Your task to perform on an android device: toggle data saver in the chrome app Image 0: 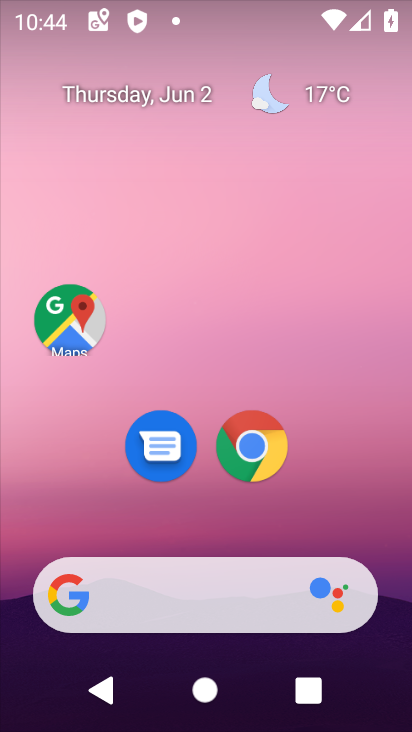
Step 0: click (249, 443)
Your task to perform on an android device: toggle data saver in the chrome app Image 1: 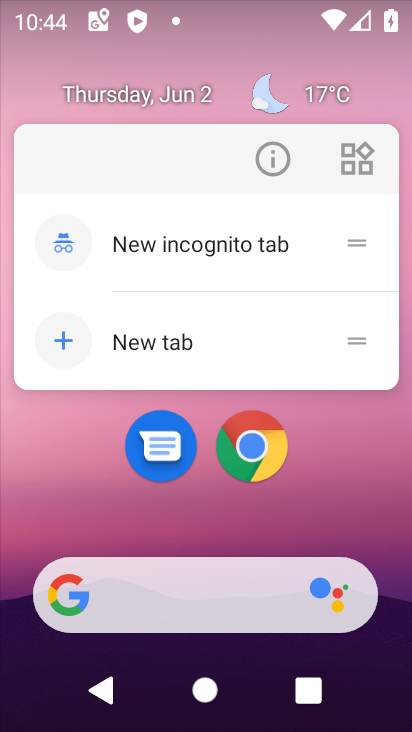
Step 1: click (249, 443)
Your task to perform on an android device: toggle data saver in the chrome app Image 2: 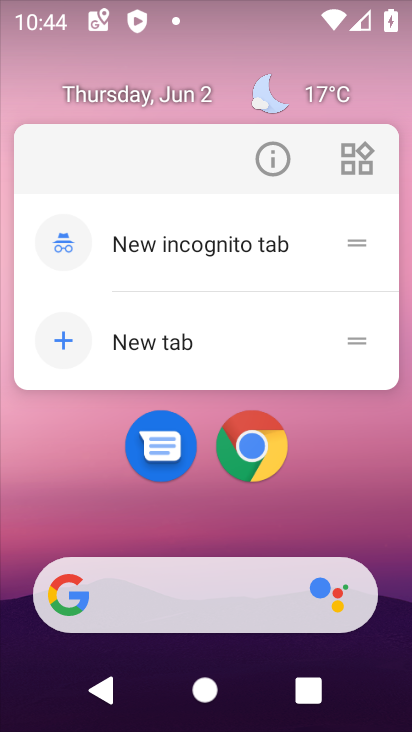
Step 2: click (258, 450)
Your task to perform on an android device: toggle data saver in the chrome app Image 3: 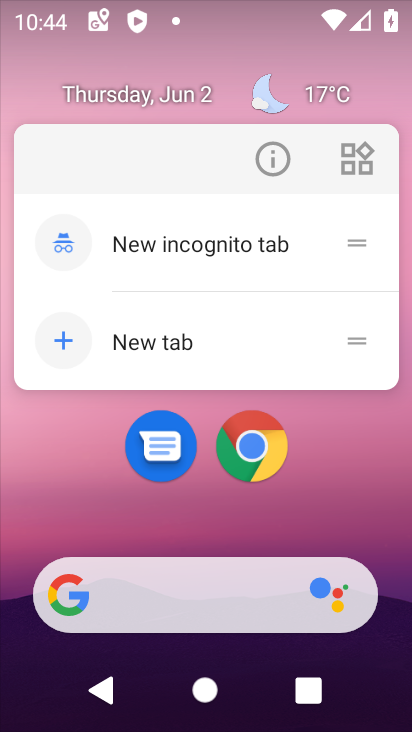
Step 3: click (334, 483)
Your task to perform on an android device: toggle data saver in the chrome app Image 4: 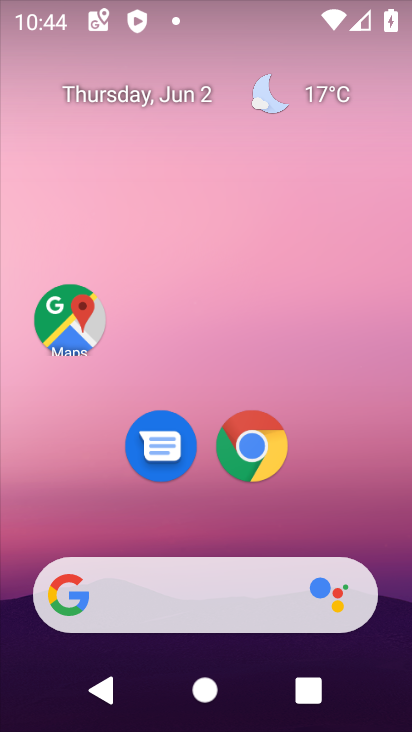
Step 4: drag from (329, 479) to (328, 32)
Your task to perform on an android device: toggle data saver in the chrome app Image 5: 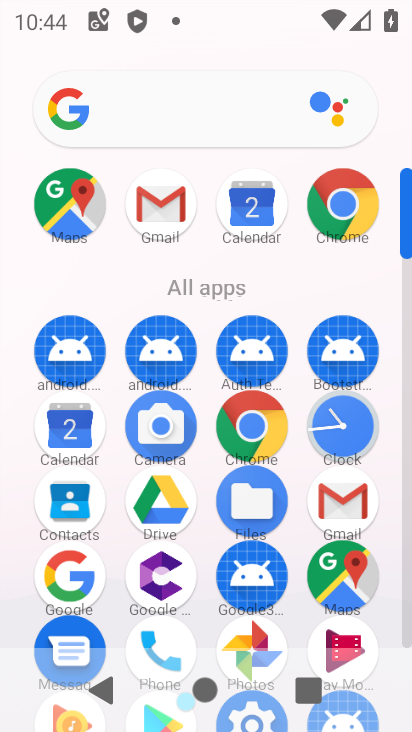
Step 5: click (343, 200)
Your task to perform on an android device: toggle data saver in the chrome app Image 6: 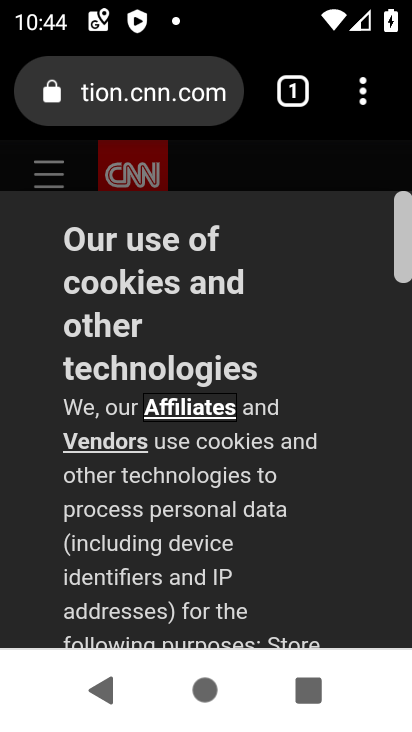
Step 6: drag from (371, 88) to (266, 516)
Your task to perform on an android device: toggle data saver in the chrome app Image 7: 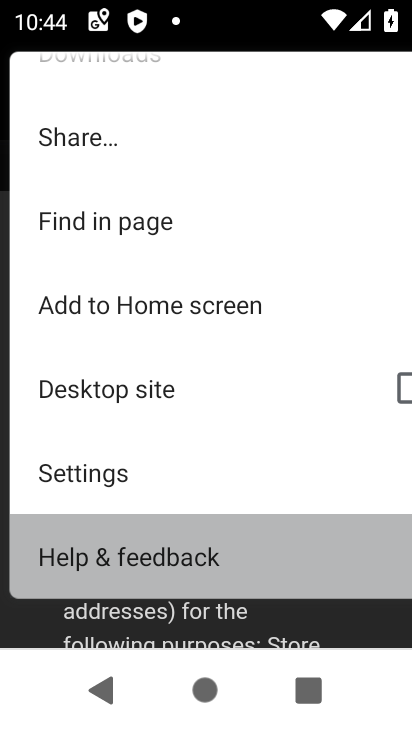
Step 7: drag from (265, 511) to (341, 244)
Your task to perform on an android device: toggle data saver in the chrome app Image 8: 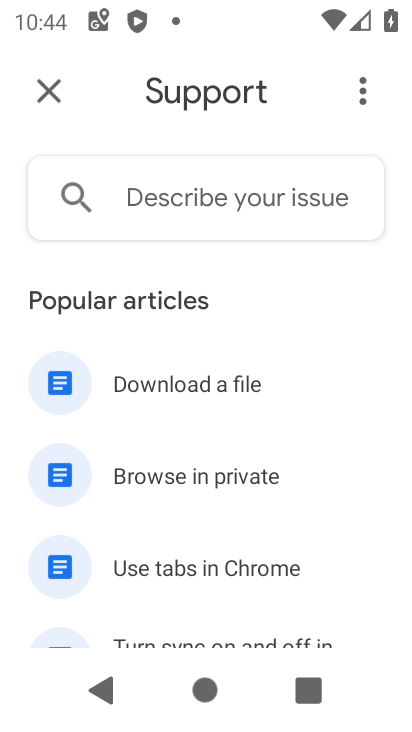
Step 8: click (51, 78)
Your task to perform on an android device: toggle data saver in the chrome app Image 9: 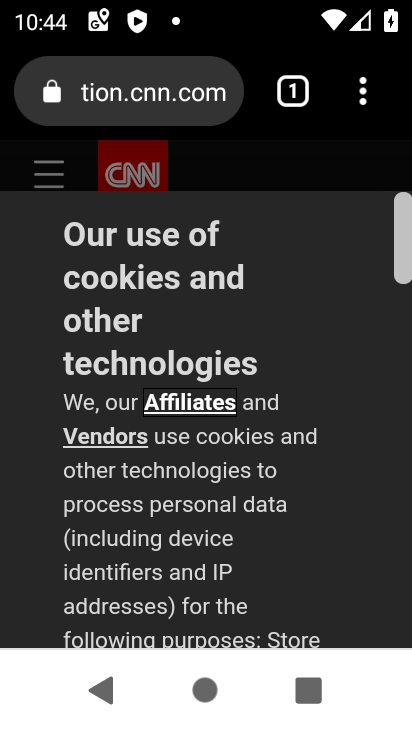
Step 9: drag from (361, 94) to (181, 474)
Your task to perform on an android device: toggle data saver in the chrome app Image 10: 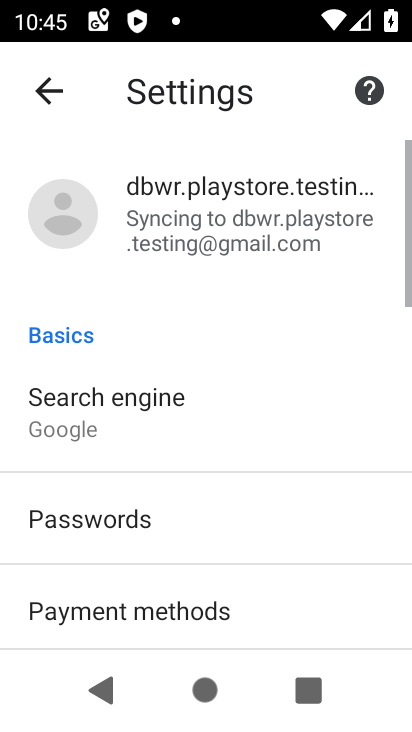
Step 10: drag from (148, 565) to (179, 36)
Your task to perform on an android device: toggle data saver in the chrome app Image 11: 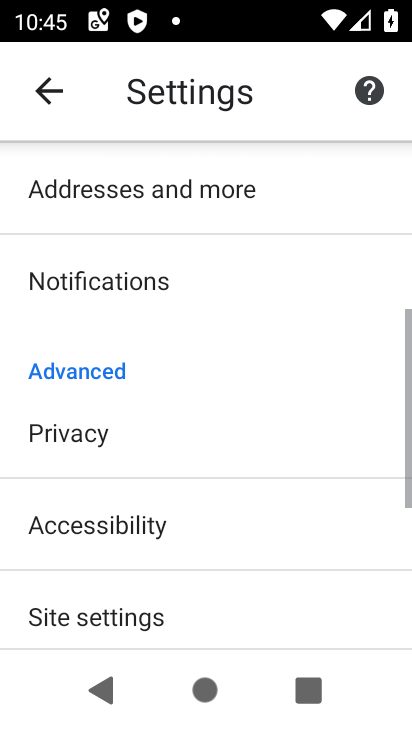
Step 11: drag from (196, 510) to (174, 95)
Your task to perform on an android device: toggle data saver in the chrome app Image 12: 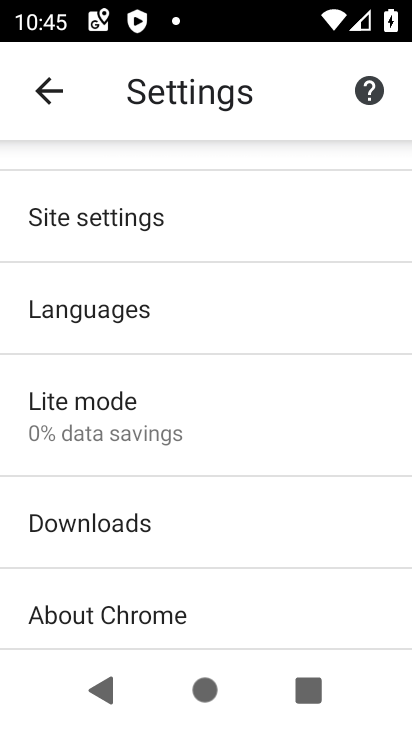
Step 12: click (132, 408)
Your task to perform on an android device: toggle data saver in the chrome app Image 13: 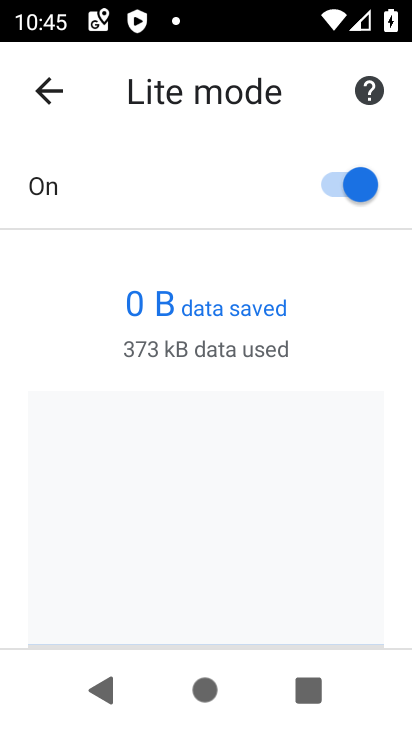
Step 13: click (344, 195)
Your task to perform on an android device: toggle data saver in the chrome app Image 14: 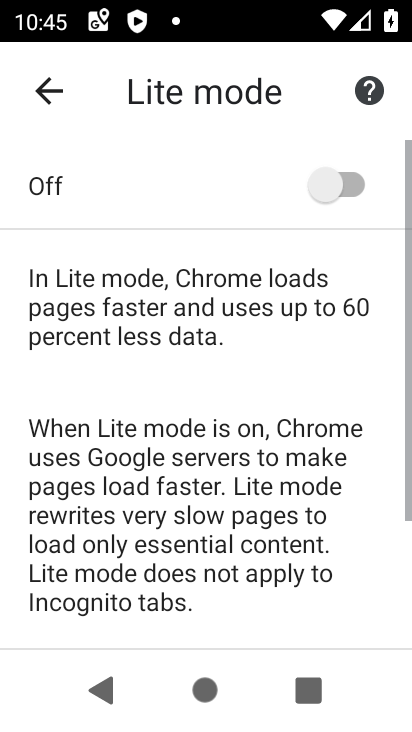
Step 14: task complete